Your task to perform on an android device: turn off picture-in-picture Image 0: 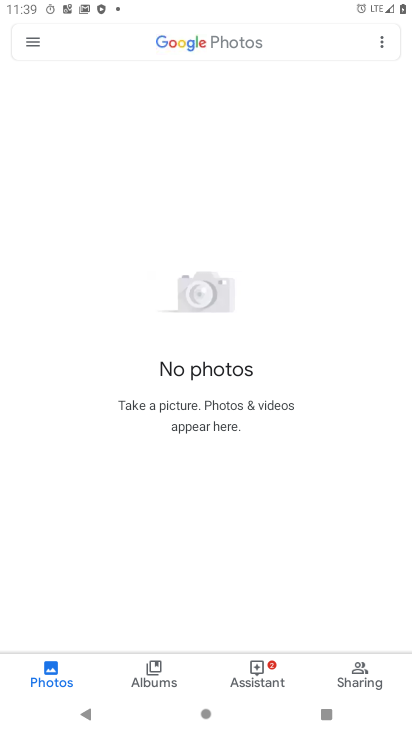
Step 0: press home button
Your task to perform on an android device: turn off picture-in-picture Image 1: 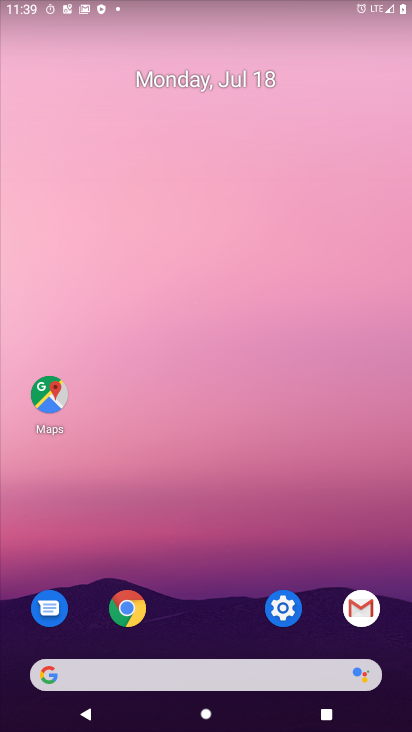
Step 1: drag from (234, 686) to (237, 179)
Your task to perform on an android device: turn off picture-in-picture Image 2: 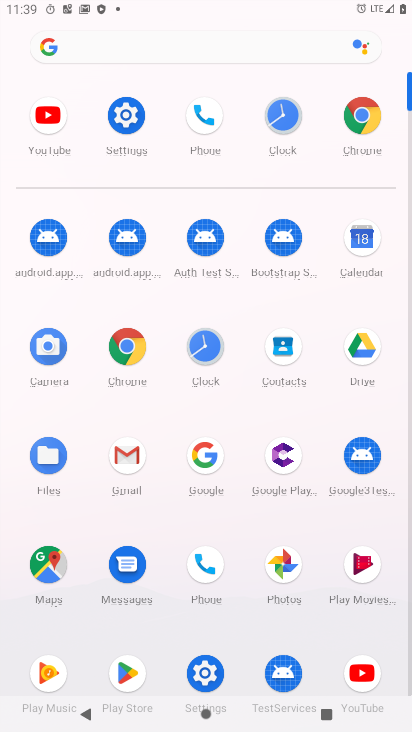
Step 2: click (360, 677)
Your task to perform on an android device: turn off picture-in-picture Image 3: 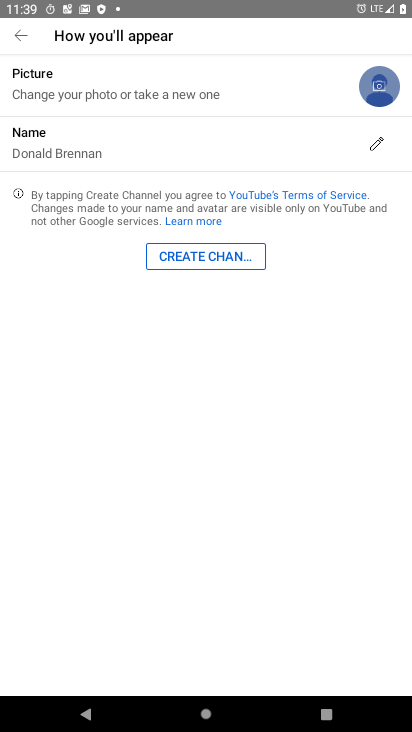
Step 3: click (25, 36)
Your task to perform on an android device: turn off picture-in-picture Image 4: 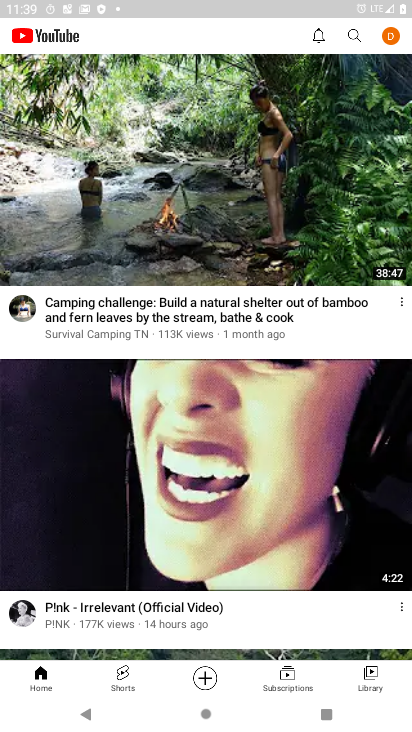
Step 4: click (385, 32)
Your task to perform on an android device: turn off picture-in-picture Image 5: 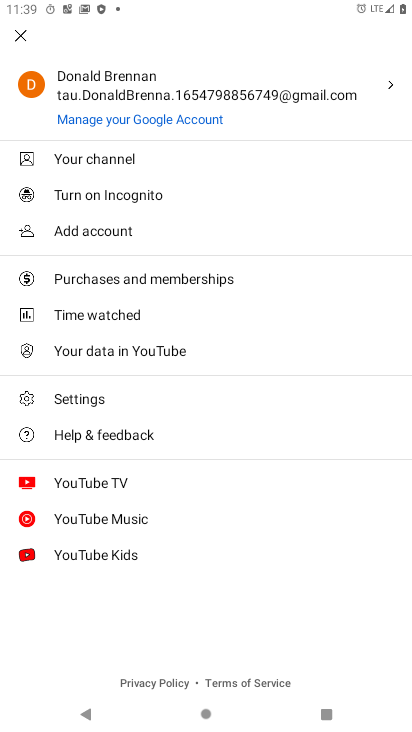
Step 5: click (81, 396)
Your task to perform on an android device: turn off picture-in-picture Image 6: 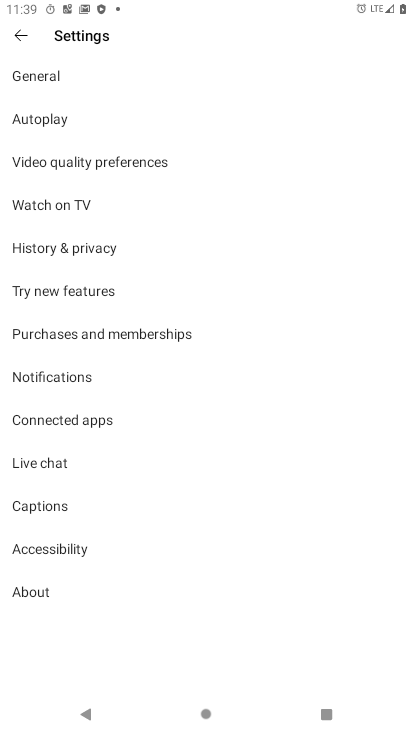
Step 6: click (48, 81)
Your task to perform on an android device: turn off picture-in-picture Image 7: 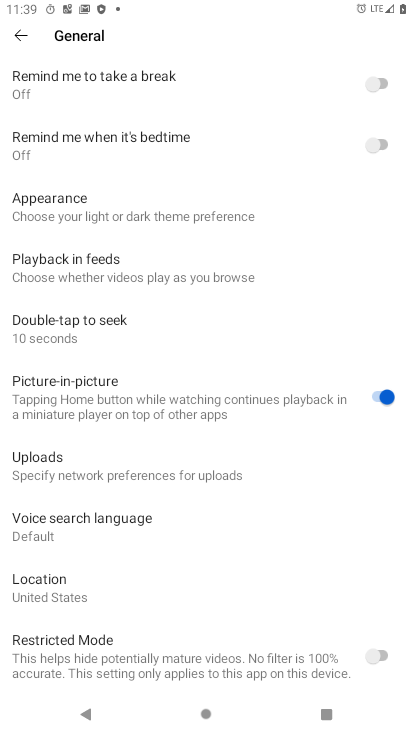
Step 7: click (159, 403)
Your task to perform on an android device: turn off picture-in-picture Image 8: 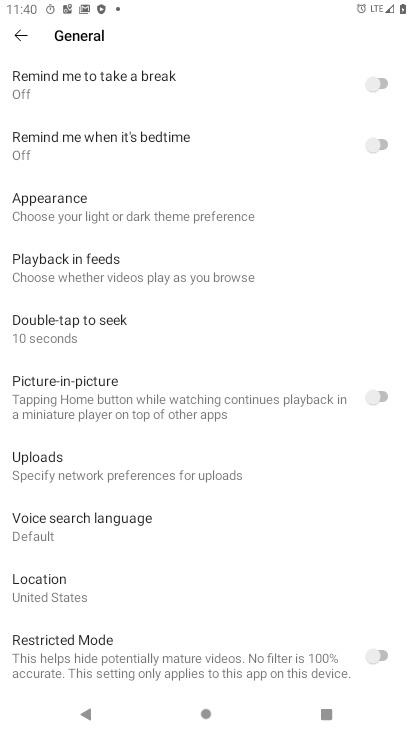
Step 8: task complete